Your task to perform on an android device: turn on wifi Image 0: 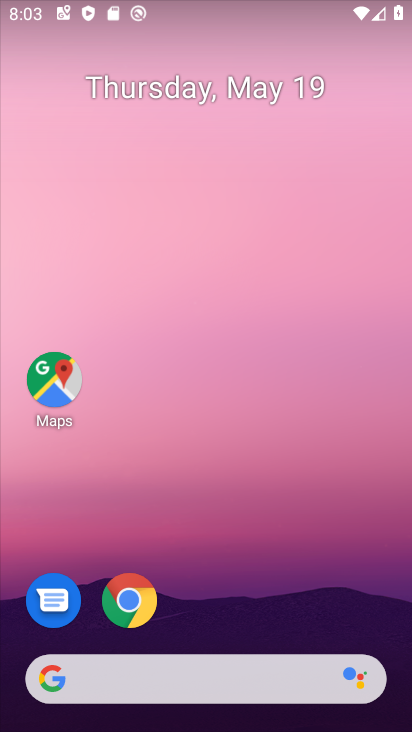
Step 0: drag from (246, 628) to (277, 12)
Your task to perform on an android device: turn on wifi Image 1: 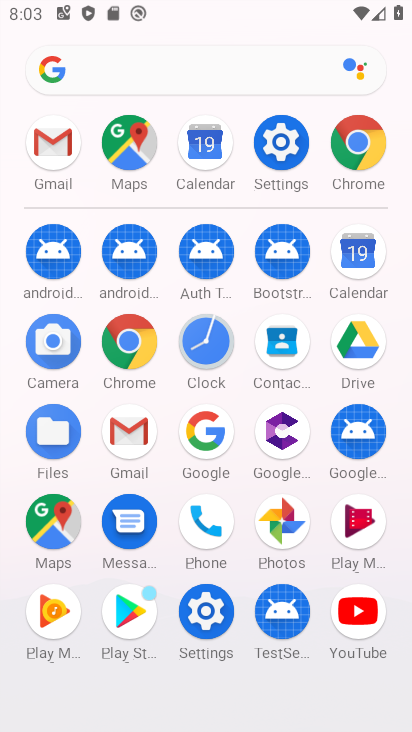
Step 1: click (267, 150)
Your task to perform on an android device: turn on wifi Image 2: 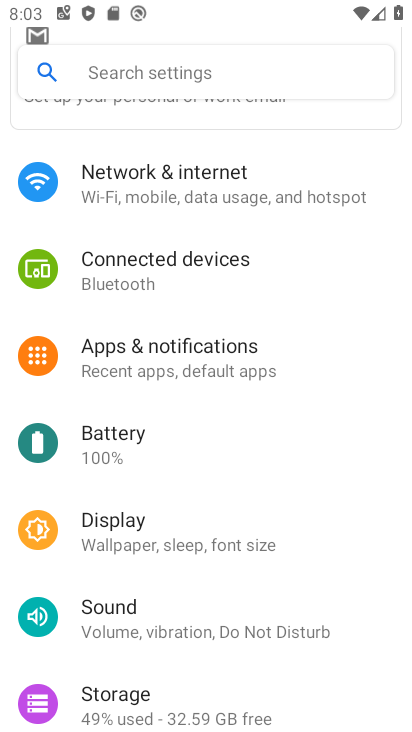
Step 2: click (113, 176)
Your task to perform on an android device: turn on wifi Image 3: 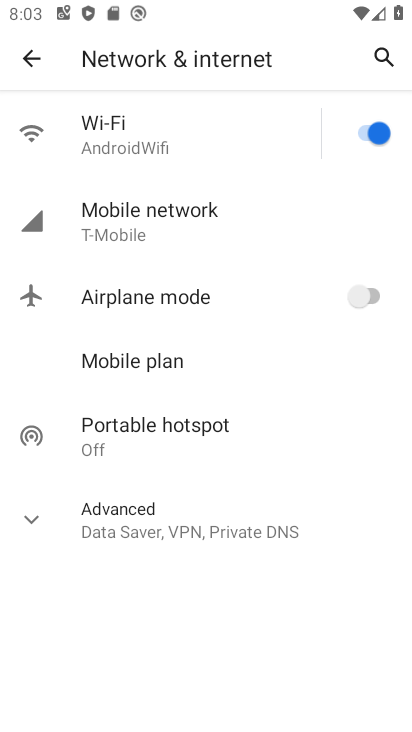
Step 3: task complete